Your task to perform on an android device: change your default location settings in chrome Image 0: 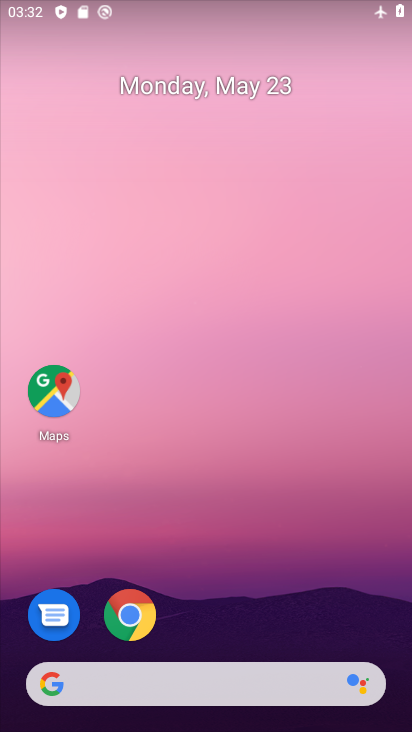
Step 0: drag from (259, 577) to (303, 274)
Your task to perform on an android device: change your default location settings in chrome Image 1: 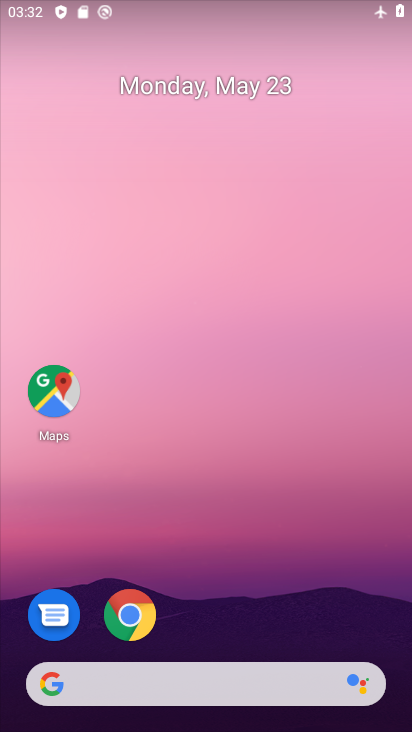
Step 1: drag from (298, 588) to (307, 204)
Your task to perform on an android device: change your default location settings in chrome Image 2: 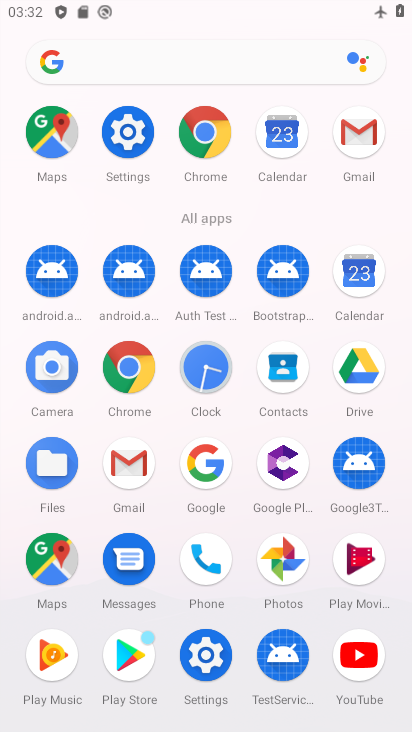
Step 2: click (369, 132)
Your task to perform on an android device: change your default location settings in chrome Image 3: 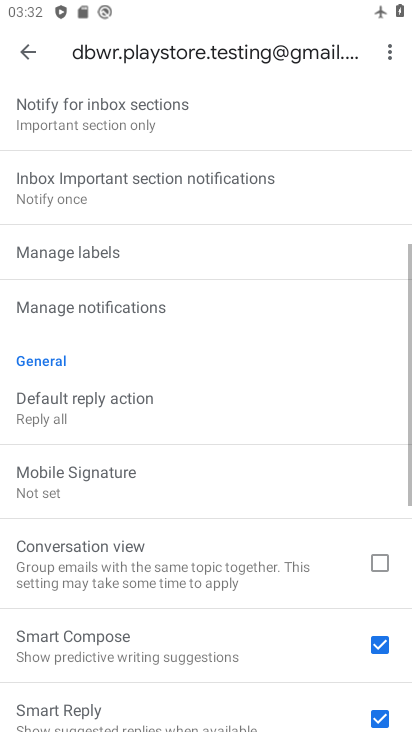
Step 3: drag from (147, 160) to (235, 629)
Your task to perform on an android device: change your default location settings in chrome Image 4: 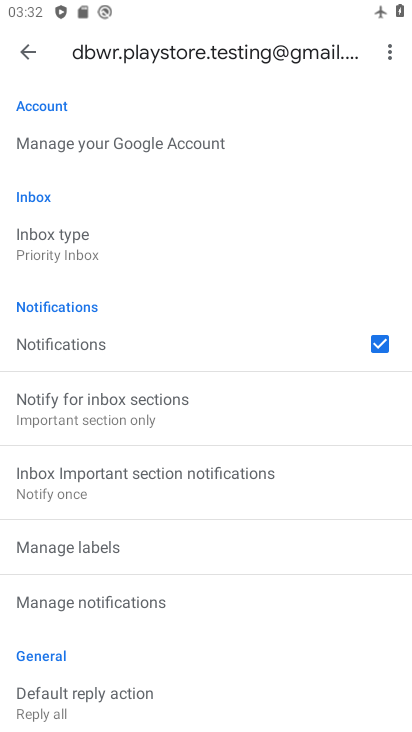
Step 4: drag from (217, 613) to (210, 207)
Your task to perform on an android device: change your default location settings in chrome Image 5: 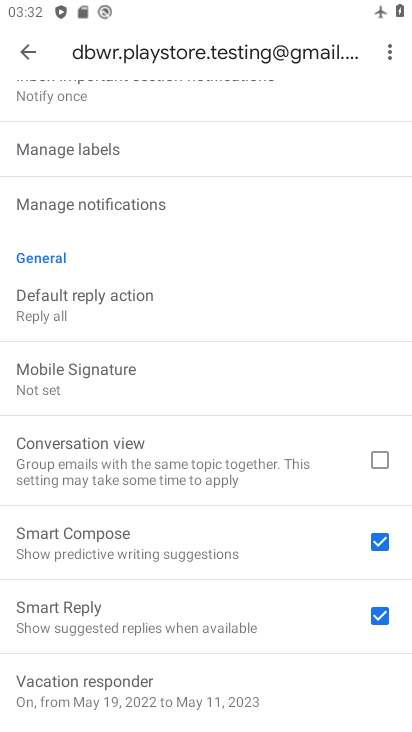
Step 5: click (34, 48)
Your task to perform on an android device: change your default location settings in chrome Image 6: 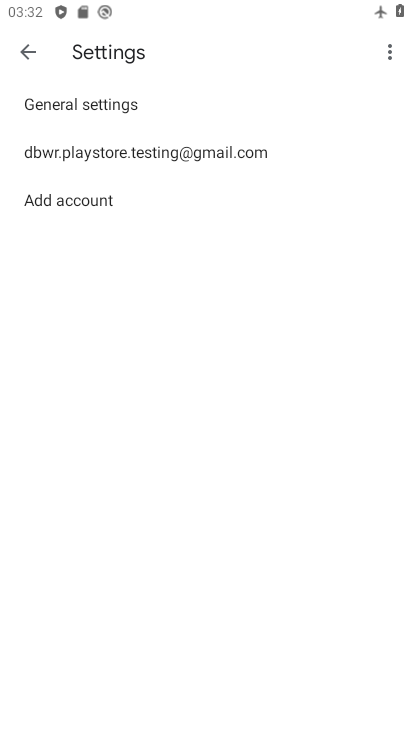
Step 6: press home button
Your task to perform on an android device: change your default location settings in chrome Image 7: 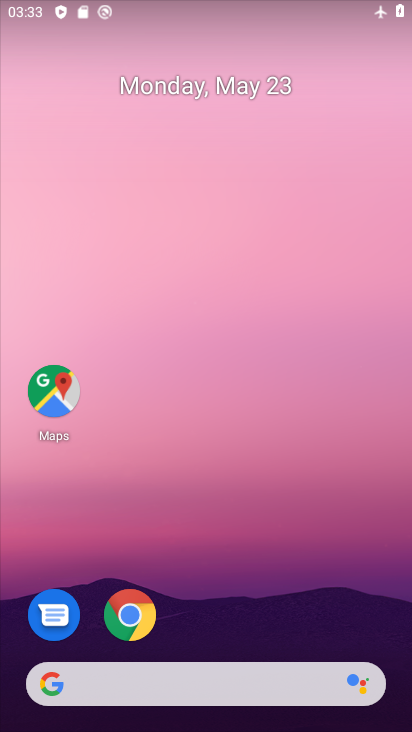
Step 7: click (139, 613)
Your task to perform on an android device: change your default location settings in chrome Image 8: 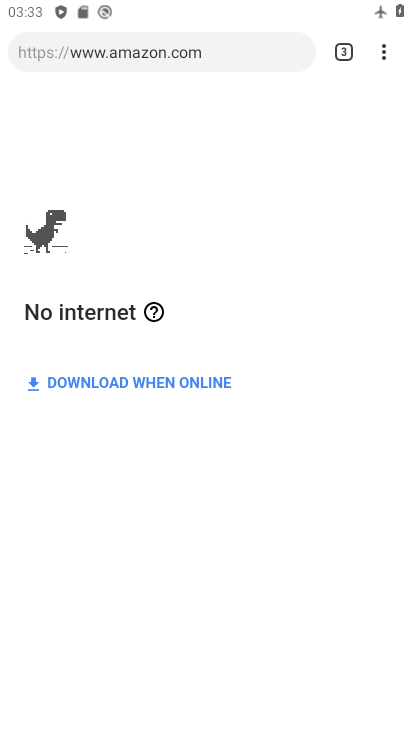
Step 8: click (395, 45)
Your task to perform on an android device: change your default location settings in chrome Image 9: 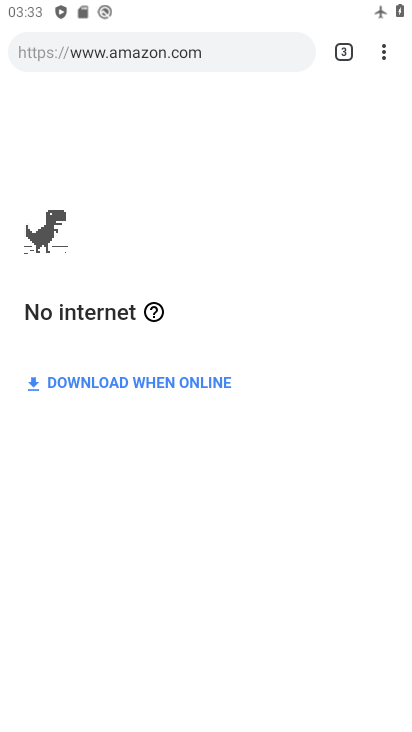
Step 9: click (388, 40)
Your task to perform on an android device: change your default location settings in chrome Image 10: 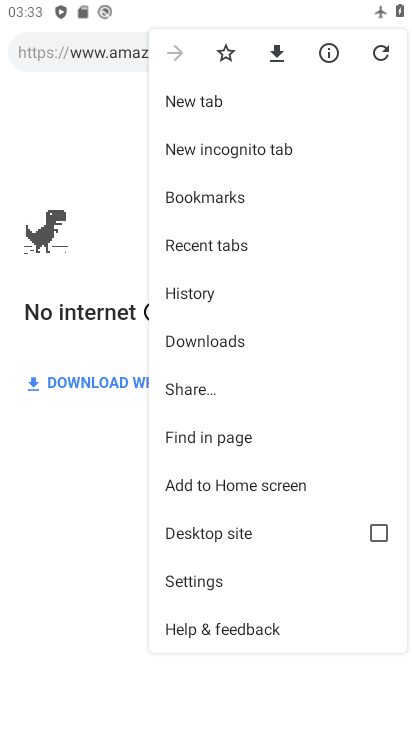
Step 10: click (177, 574)
Your task to perform on an android device: change your default location settings in chrome Image 11: 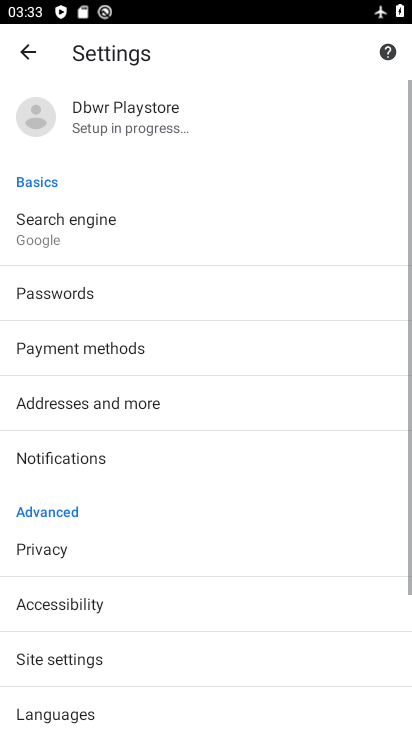
Step 11: drag from (222, 584) to (238, 264)
Your task to perform on an android device: change your default location settings in chrome Image 12: 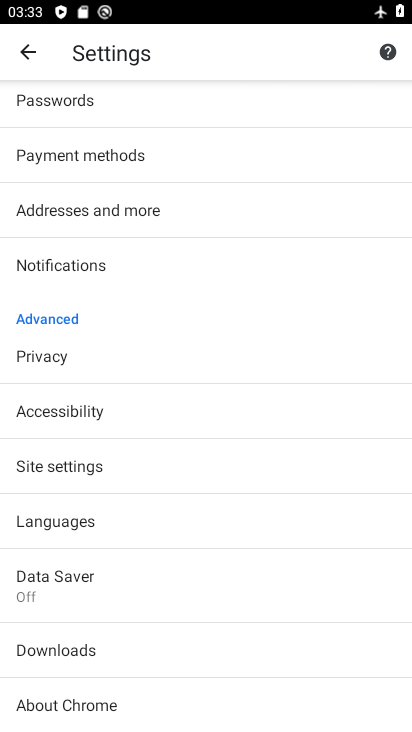
Step 12: click (132, 520)
Your task to perform on an android device: change your default location settings in chrome Image 13: 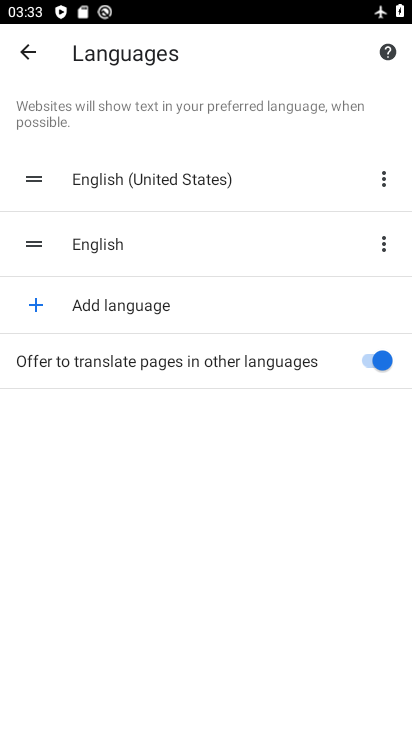
Step 13: click (26, 45)
Your task to perform on an android device: change your default location settings in chrome Image 14: 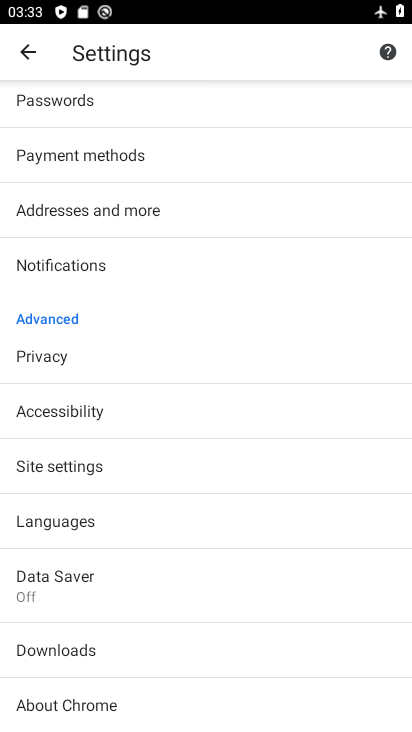
Step 14: click (93, 470)
Your task to perform on an android device: change your default location settings in chrome Image 15: 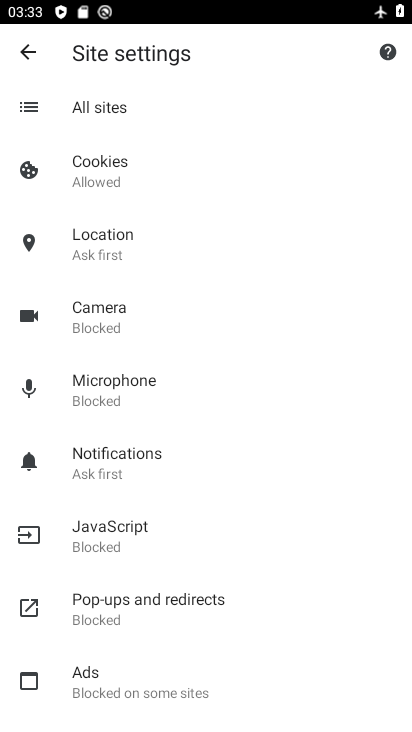
Step 15: click (111, 231)
Your task to perform on an android device: change your default location settings in chrome Image 16: 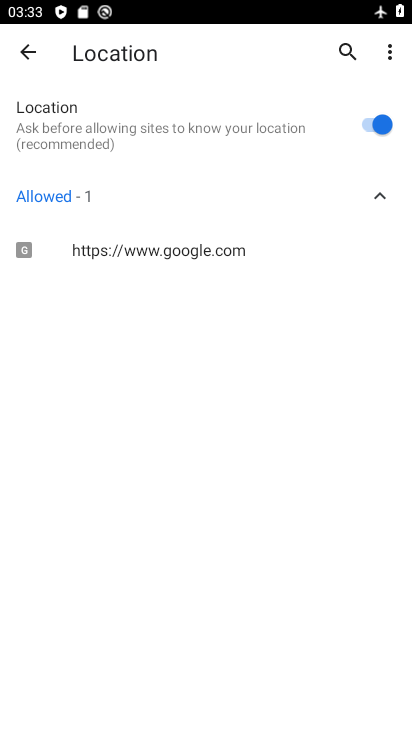
Step 16: click (376, 116)
Your task to perform on an android device: change your default location settings in chrome Image 17: 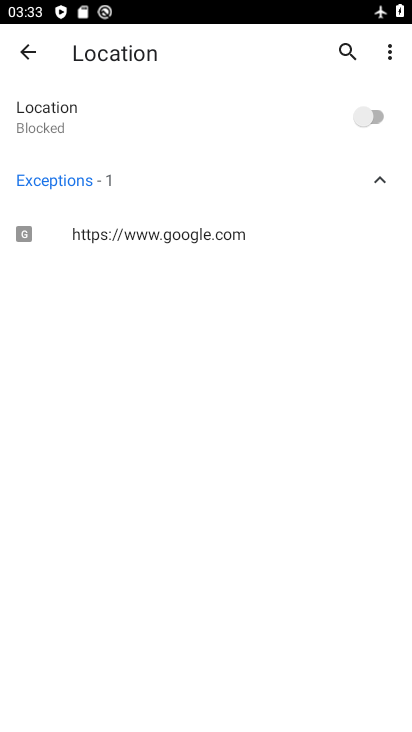
Step 17: task complete